Your task to perform on an android device: Search for Italian restaurants on Maps Image 0: 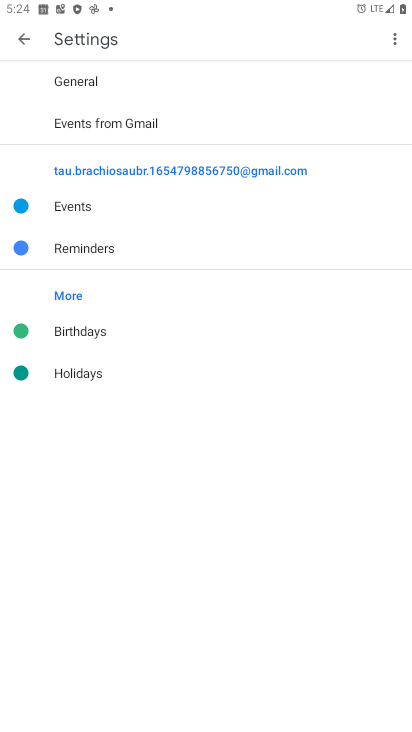
Step 0: press home button
Your task to perform on an android device: Search for Italian restaurants on Maps Image 1: 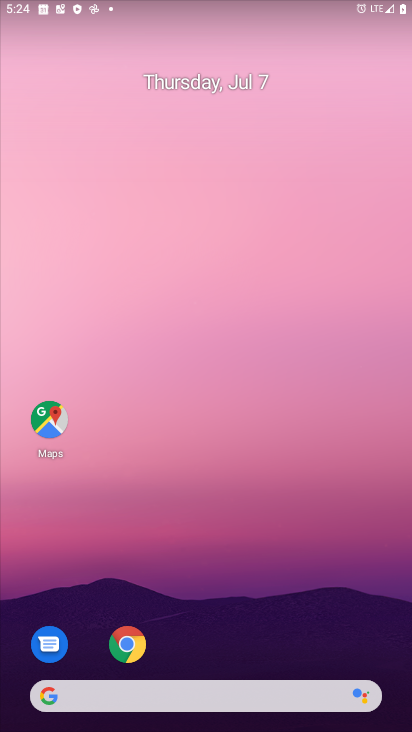
Step 1: click (47, 420)
Your task to perform on an android device: Search for Italian restaurants on Maps Image 2: 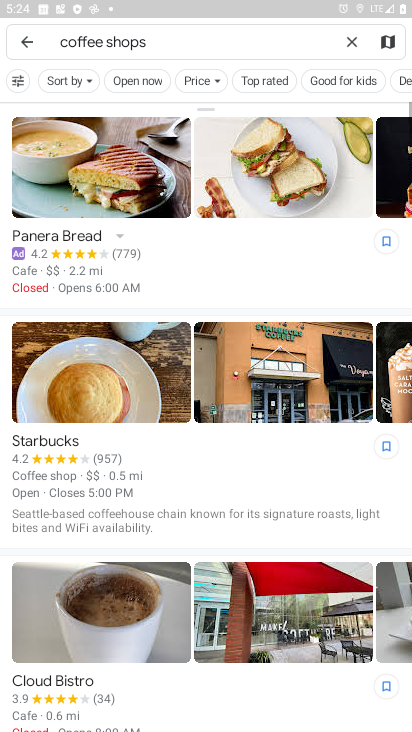
Step 2: click (348, 41)
Your task to perform on an android device: Search for Italian restaurants on Maps Image 3: 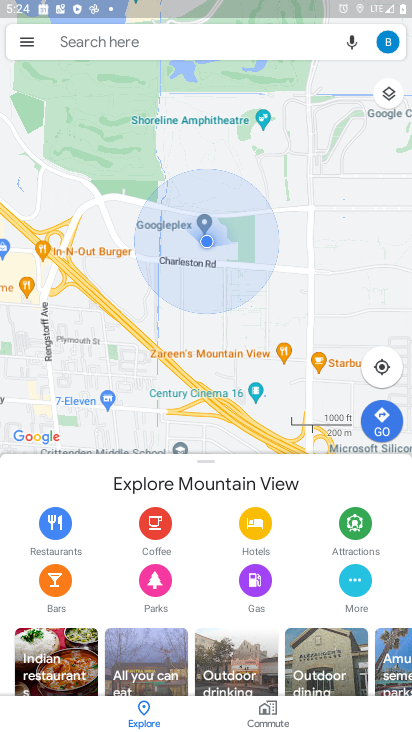
Step 3: click (271, 46)
Your task to perform on an android device: Search for Italian restaurants on Maps Image 4: 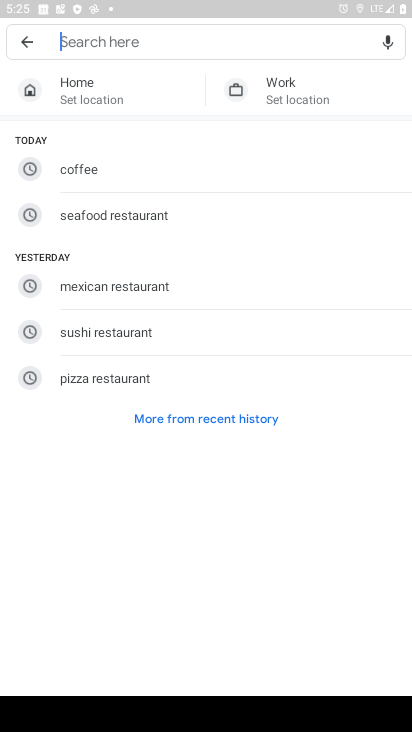
Step 4: type "Italian restaurants"
Your task to perform on an android device: Search for Italian restaurants on Maps Image 5: 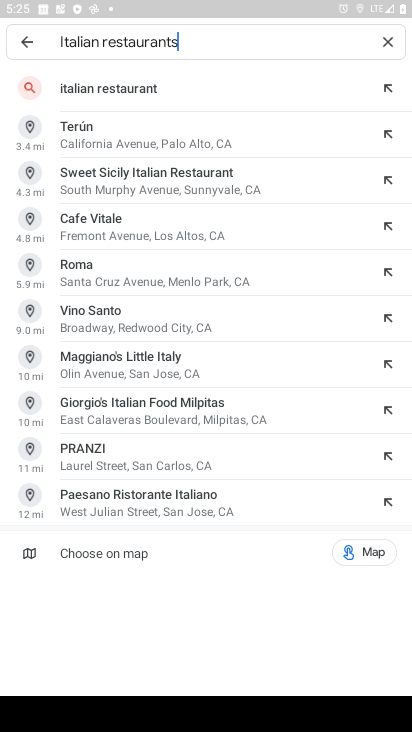
Step 5: click (141, 90)
Your task to perform on an android device: Search for Italian restaurants on Maps Image 6: 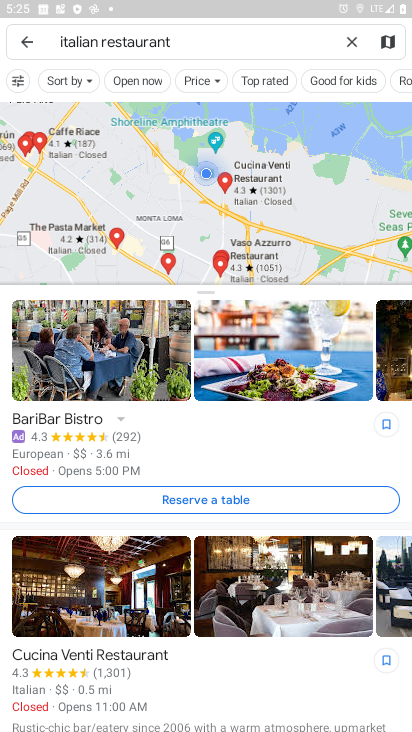
Step 6: task complete